Your task to perform on an android device: turn on improve location accuracy Image 0: 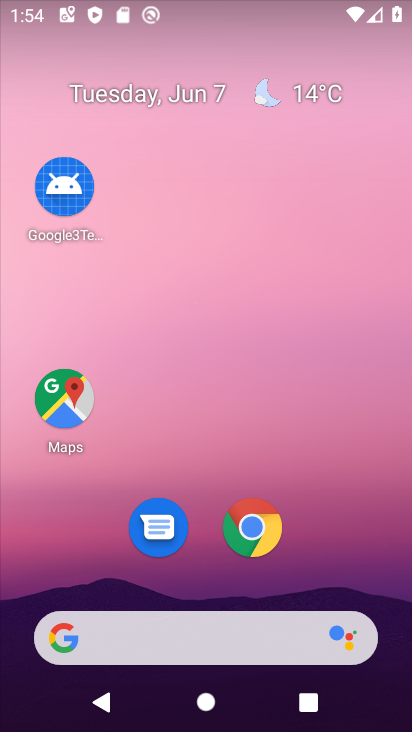
Step 0: drag from (344, 586) to (289, 3)
Your task to perform on an android device: turn on improve location accuracy Image 1: 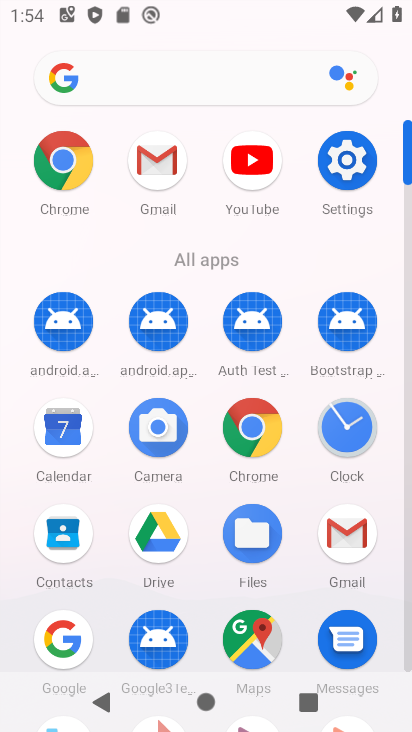
Step 1: click (370, 169)
Your task to perform on an android device: turn on improve location accuracy Image 2: 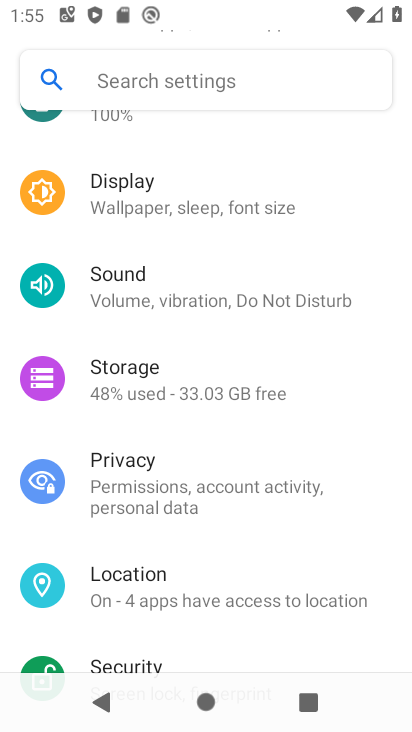
Step 2: drag from (194, 169) to (290, 316)
Your task to perform on an android device: turn on improve location accuracy Image 3: 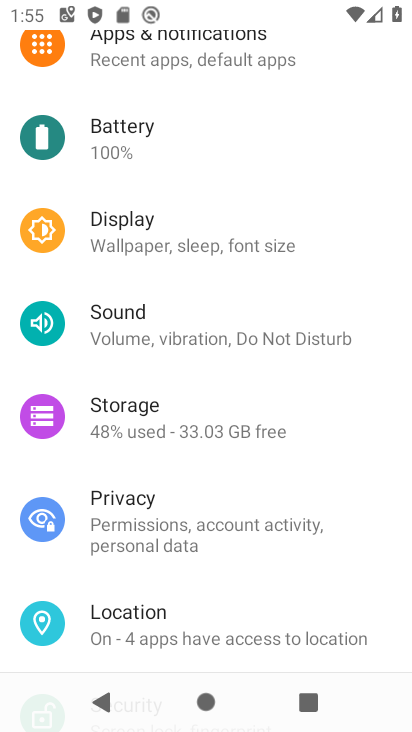
Step 3: click (109, 635)
Your task to perform on an android device: turn on improve location accuracy Image 4: 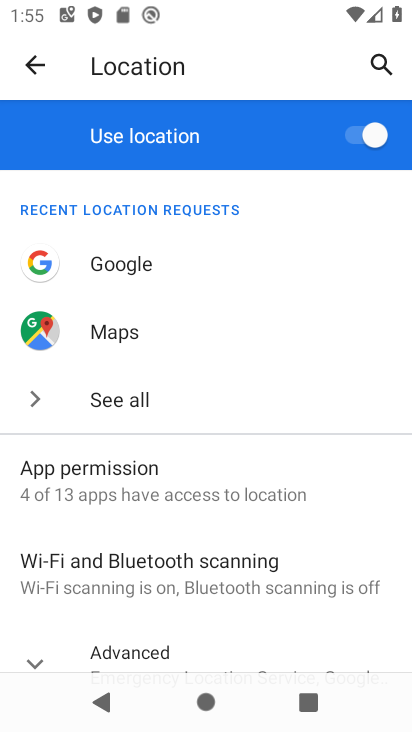
Step 4: click (192, 659)
Your task to perform on an android device: turn on improve location accuracy Image 5: 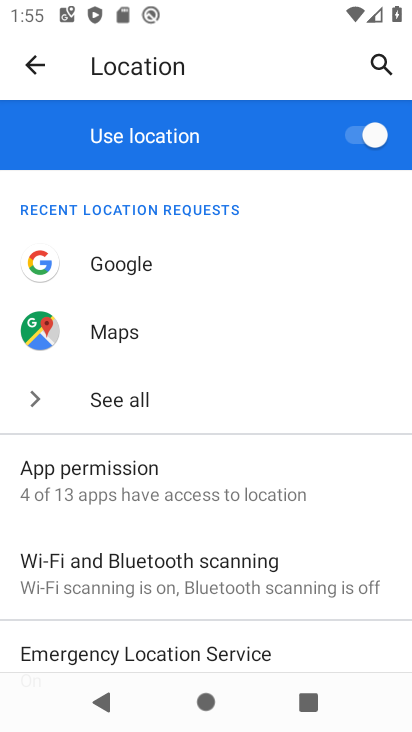
Step 5: drag from (222, 655) to (253, 153)
Your task to perform on an android device: turn on improve location accuracy Image 6: 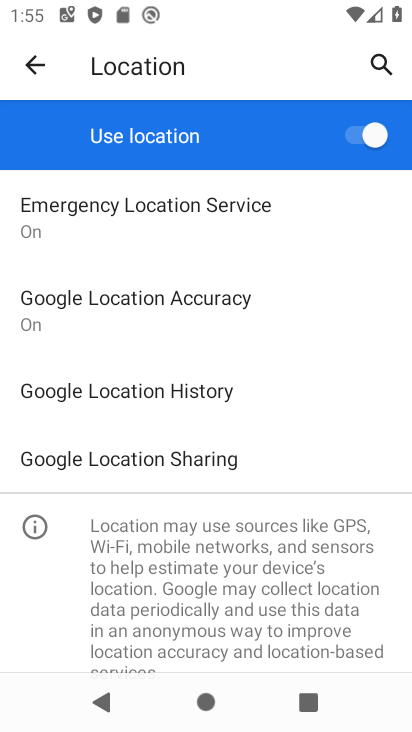
Step 6: click (231, 303)
Your task to perform on an android device: turn on improve location accuracy Image 7: 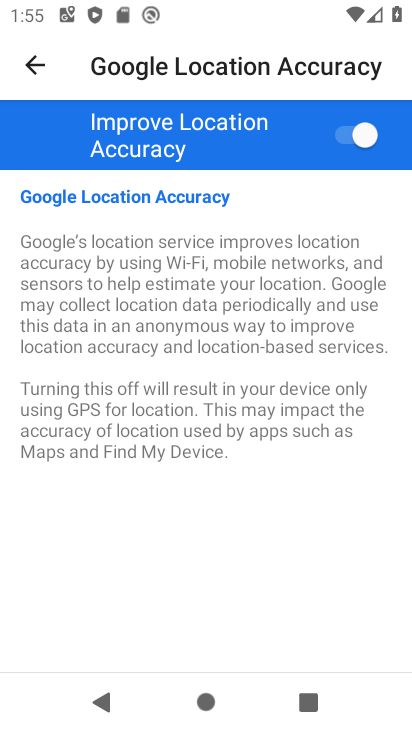
Step 7: task complete